Your task to perform on an android device: delete browsing data in the chrome app Image 0: 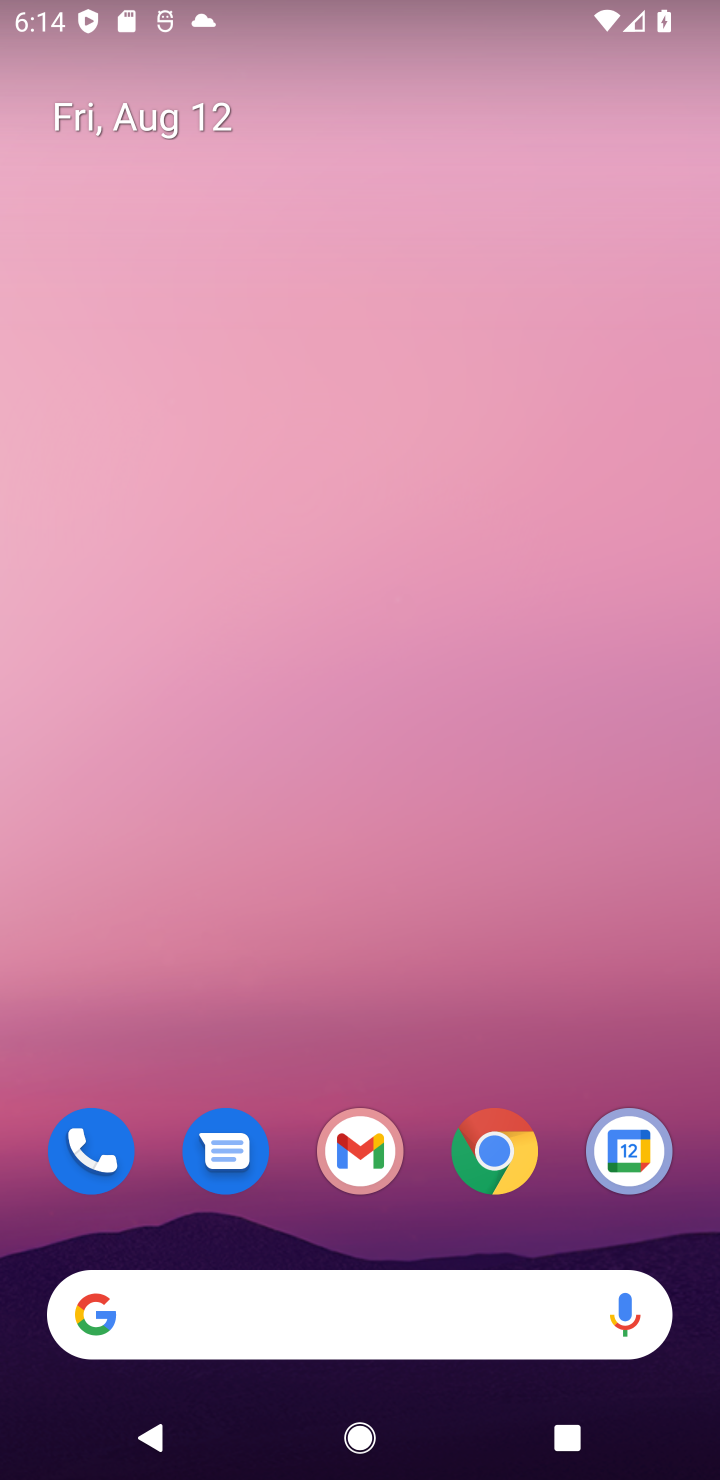
Step 0: drag from (407, 1005) to (372, 144)
Your task to perform on an android device: delete browsing data in the chrome app Image 1: 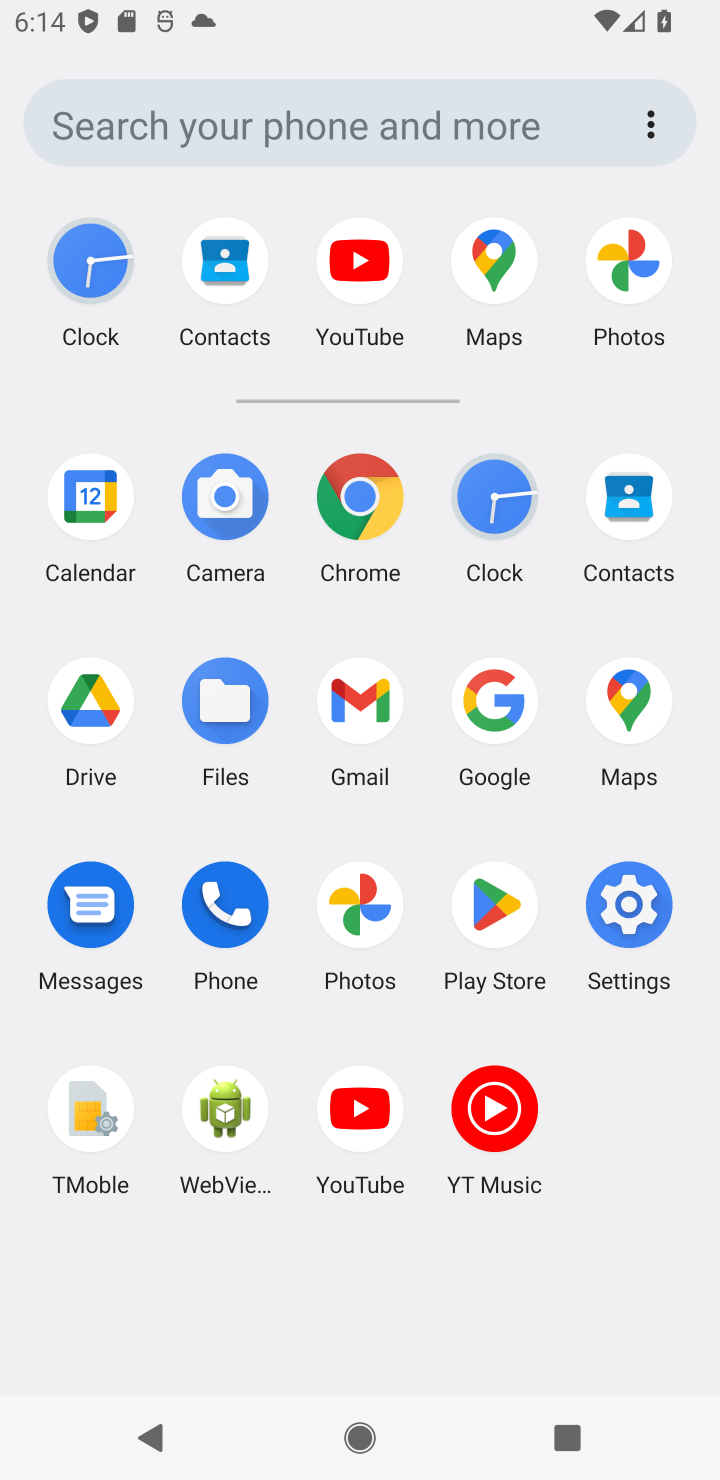
Step 1: click (355, 490)
Your task to perform on an android device: delete browsing data in the chrome app Image 2: 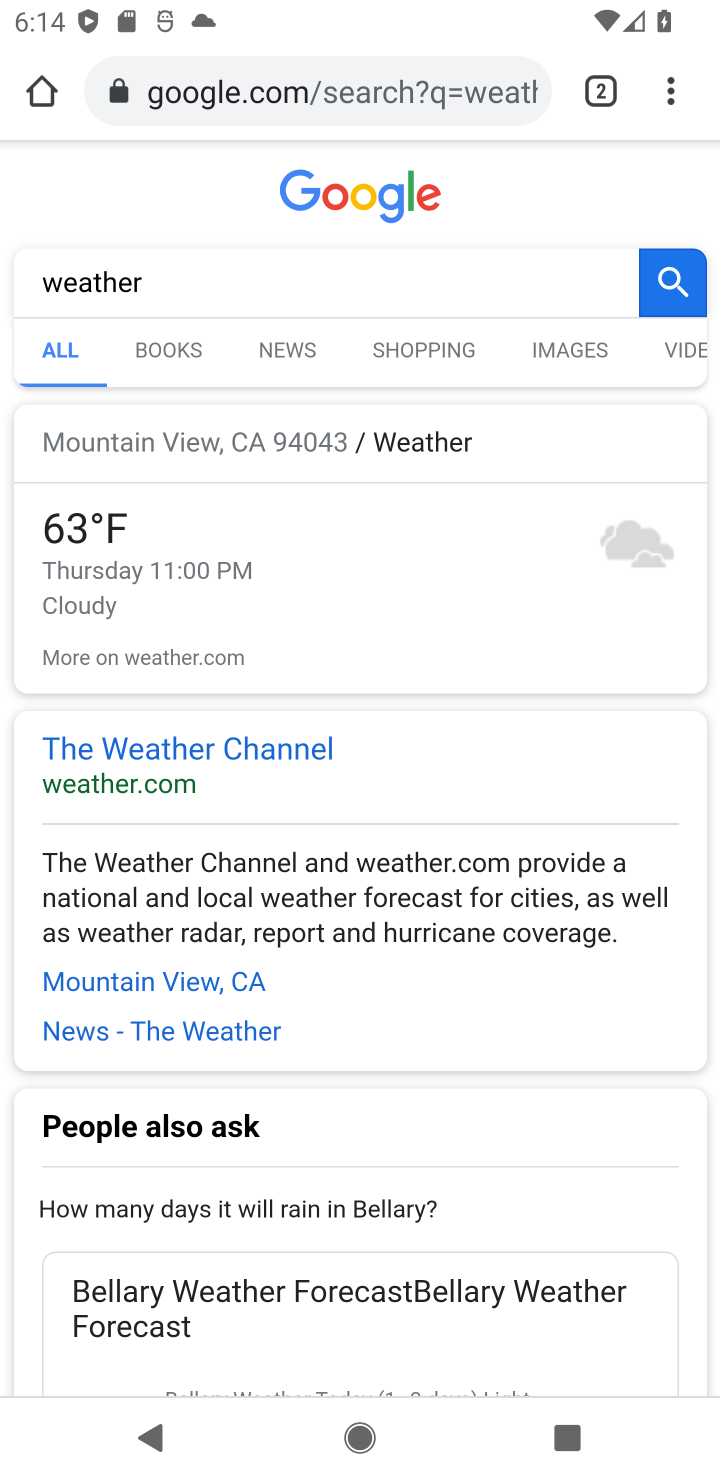
Step 2: task complete